Your task to perform on an android device: When is my next appointment? Image 0: 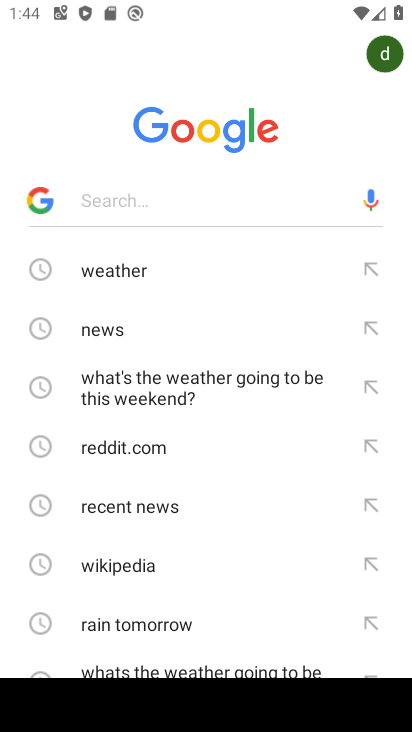
Step 0: press home button
Your task to perform on an android device: When is my next appointment? Image 1: 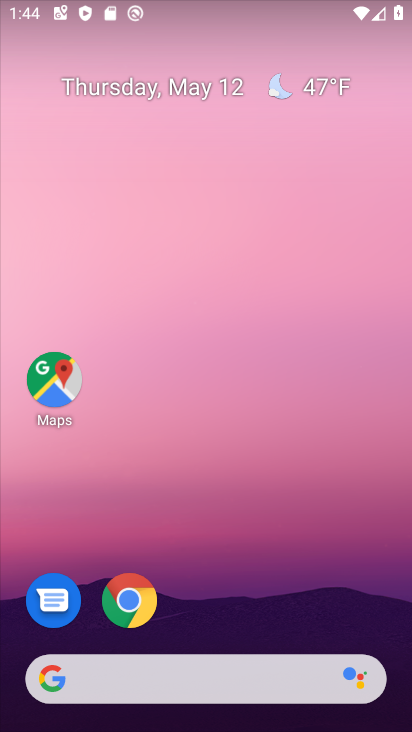
Step 1: drag from (205, 728) to (212, 214)
Your task to perform on an android device: When is my next appointment? Image 2: 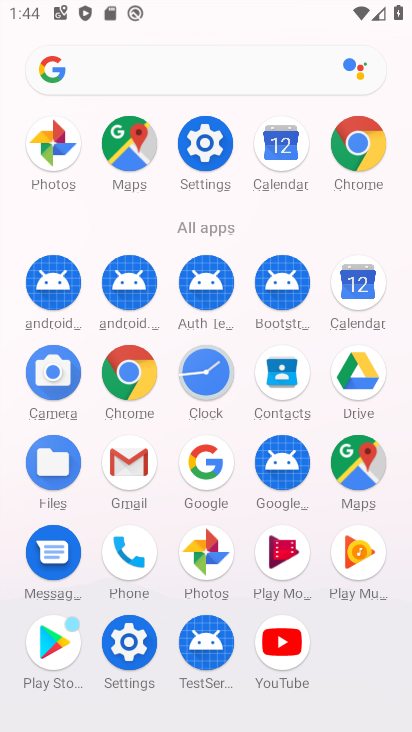
Step 2: click (359, 289)
Your task to perform on an android device: When is my next appointment? Image 3: 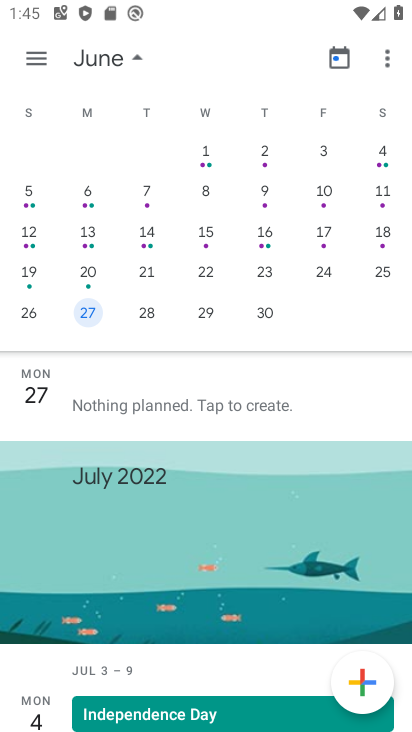
Step 3: drag from (35, 234) to (406, 250)
Your task to perform on an android device: When is my next appointment? Image 4: 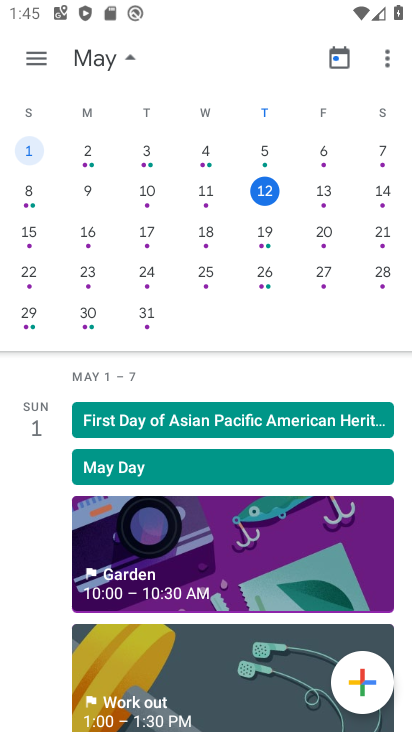
Step 4: click (327, 188)
Your task to perform on an android device: When is my next appointment? Image 5: 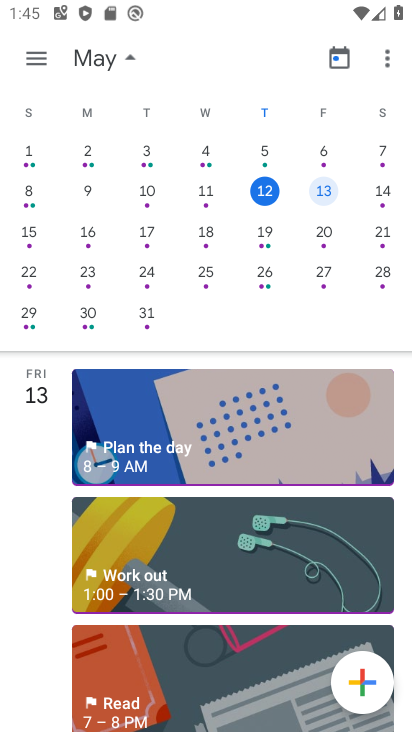
Step 5: task complete